Your task to perform on an android device: move a message to another label in the gmail app Image 0: 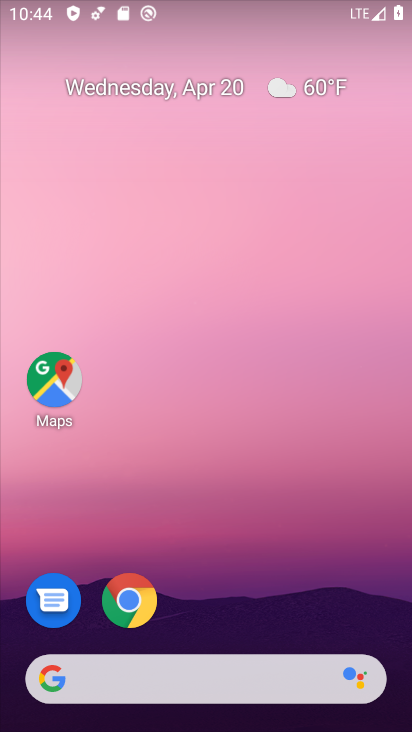
Step 0: drag from (272, 619) to (306, 171)
Your task to perform on an android device: move a message to another label in the gmail app Image 1: 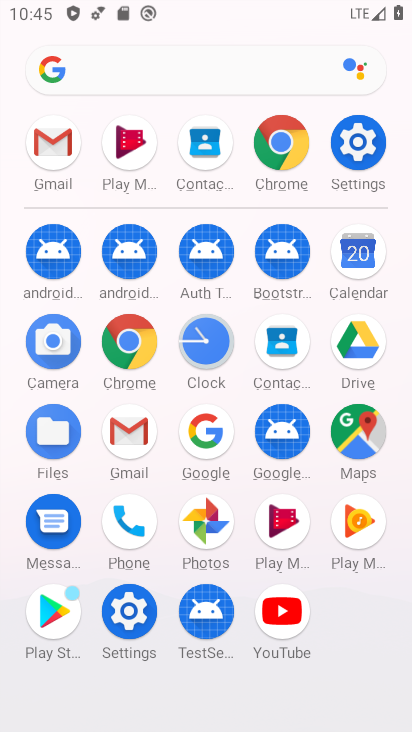
Step 1: click (51, 156)
Your task to perform on an android device: move a message to another label in the gmail app Image 2: 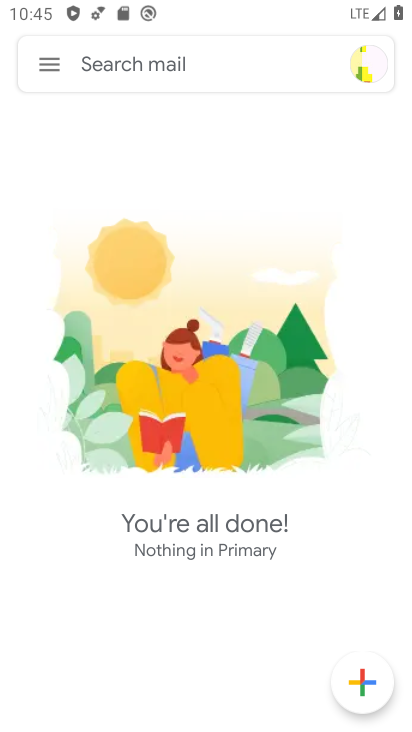
Step 2: click (38, 67)
Your task to perform on an android device: move a message to another label in the gmail app Image 3: 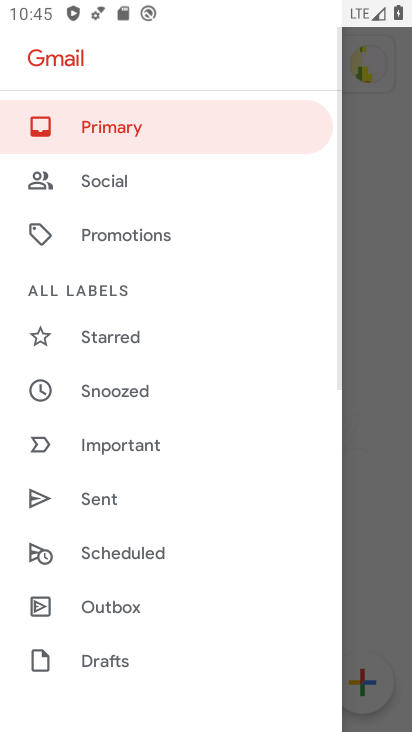
Step 3: drag from (134, 547) to (209, 214)
Your task to perform on an android device: move a message to another label in the gmail app Image 4: 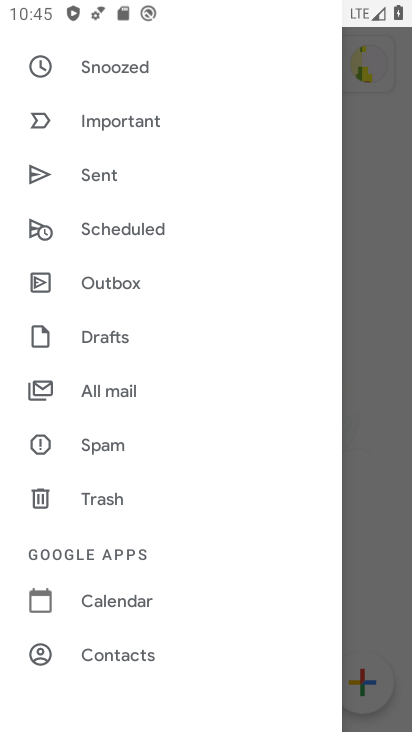
Step 4: click (130, 398)
Your task to perform on an android device: move a message to another label in the gmail app Image 5: 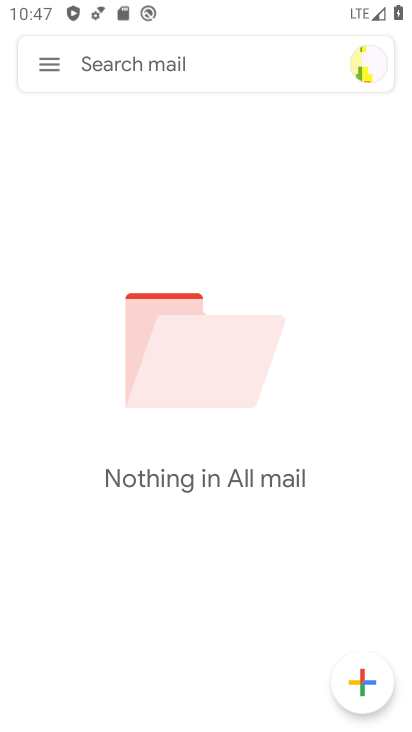
Step 5: click (53, 54)
Your task to perform on an android device: move a message to another label in the gmail app Image 6: 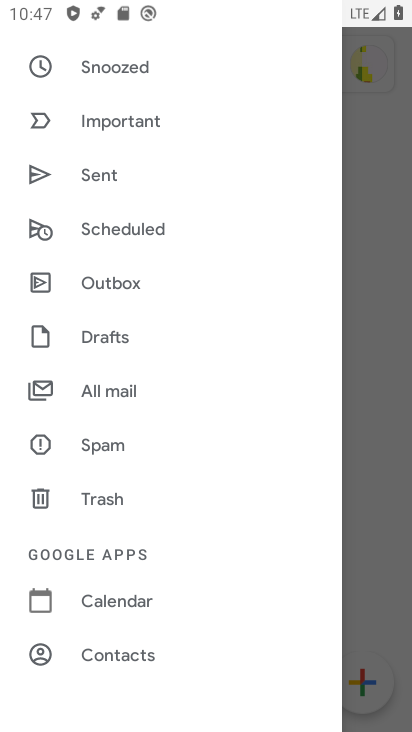
Step 6: click (93, 384)
Your task to perform on an android device: move a message to another label in the gmail app Image 7: 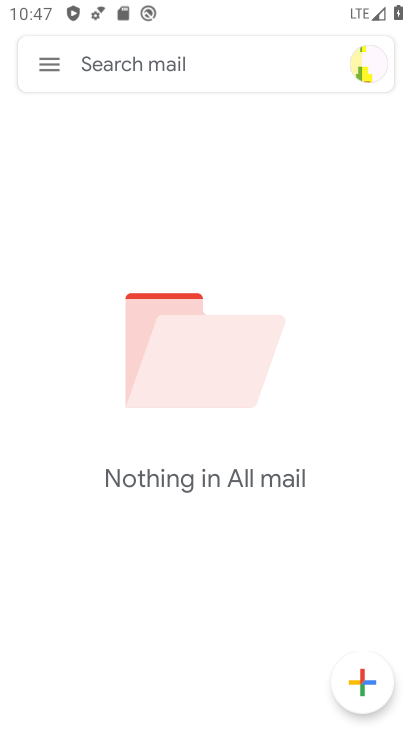
Step 7: task complete